Your task to perform on an android device: Go to Yahoo.com Image 0: 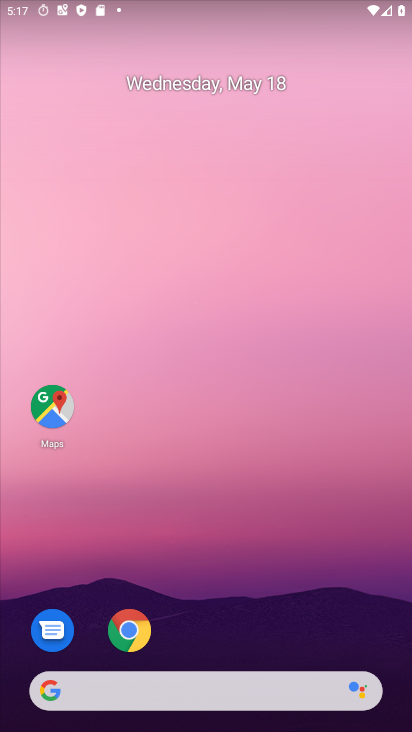
Step 0: click (127, 633)
Your task to perform on an android device: Go to Yahoo.com Image 1: 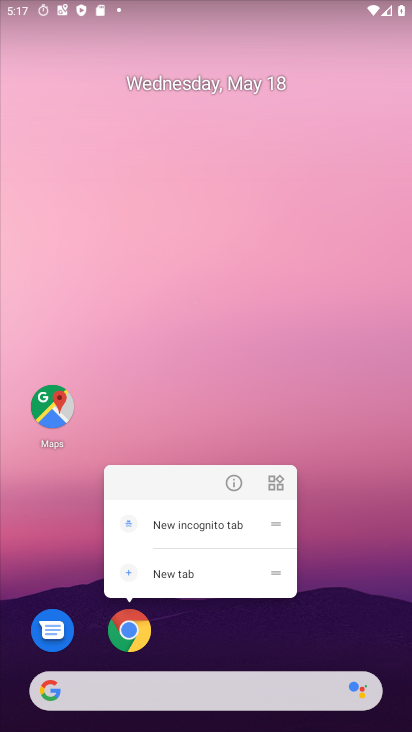
Step 1: click (127, 633)
Your task to perform on an android device: Go to Yahoo.com Image 2: 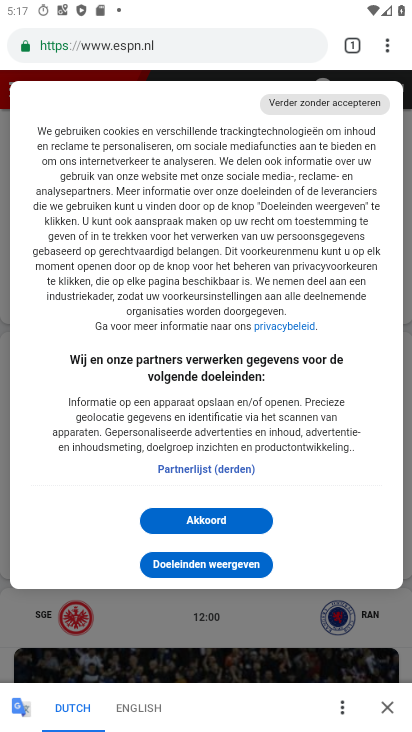
Step 2: click (382, 710)
Your task to perform on an android device: Go to Yahoo.com Image 3: 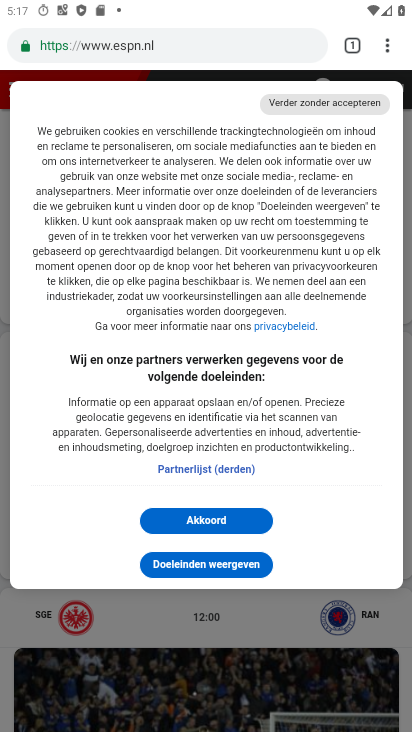
Step 3: click (349, 45)
Your task to perform on an android device: Go to Yahoo.com Image 4: 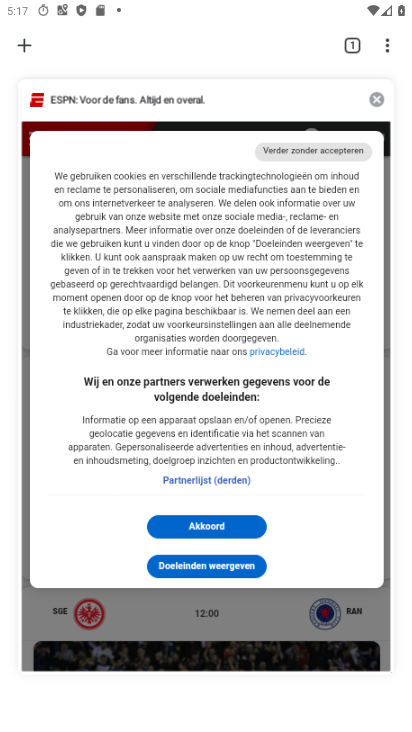
Step 4: click (374, 101)
Your task to perform on an android device: Go to Yahoo.com Image 5: 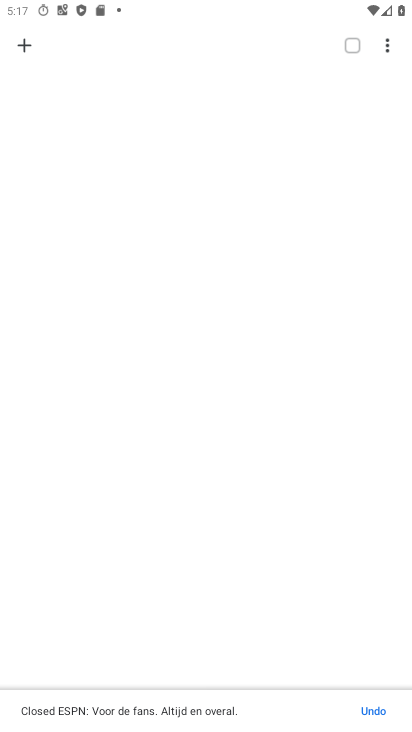
Step 5: click (22, 46)
Your task to perform on an android device: Go to Yahoo.com Image 6: 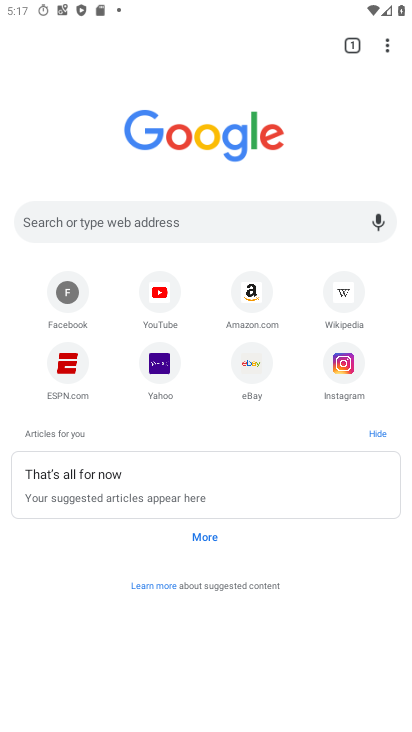
Step 6: click (164, 361)
Your task to perform on an android device: Go to Yahoo.com Image 7: 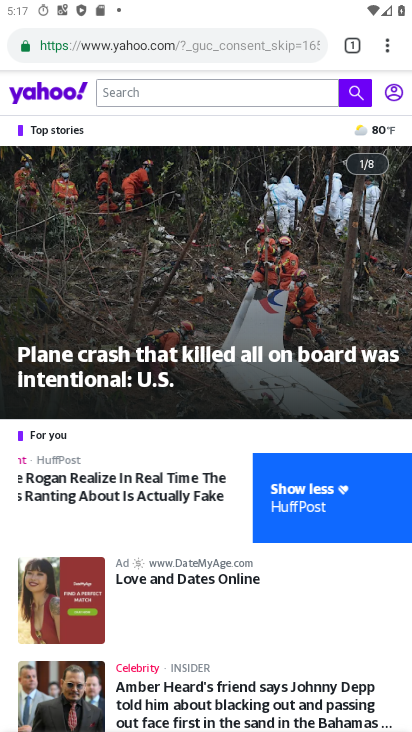
Step 7: task complete